Your task to perform on an android device: Go to wifi settings Image 0: 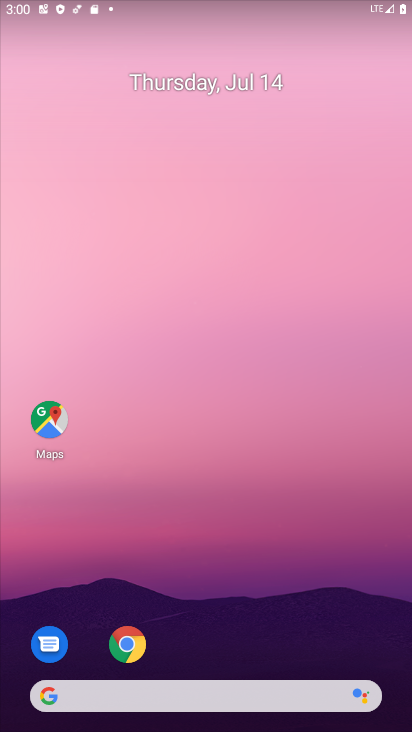
Step 0: drag from (202, 664) to (224, 204)
Your task to perform on an android device: Go to wifi settings Image 1: 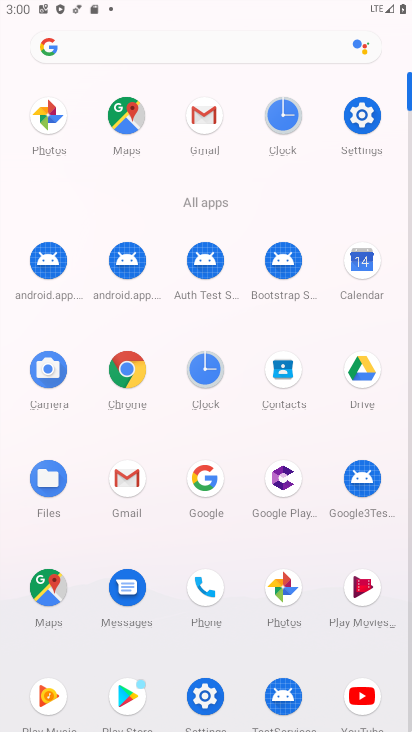
Step 1: click (206, 700)
Your task to perform on an android device: Go to wifi settings Image 2: 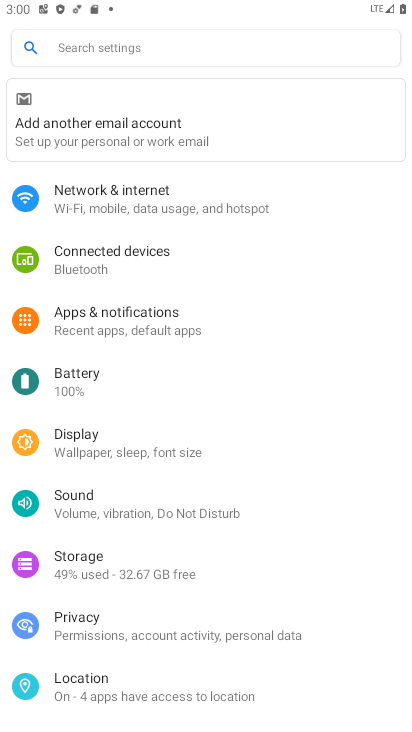
Step 2: click (127, 205)
Your task to perform on an android device: Go to wifi settings Image 3: 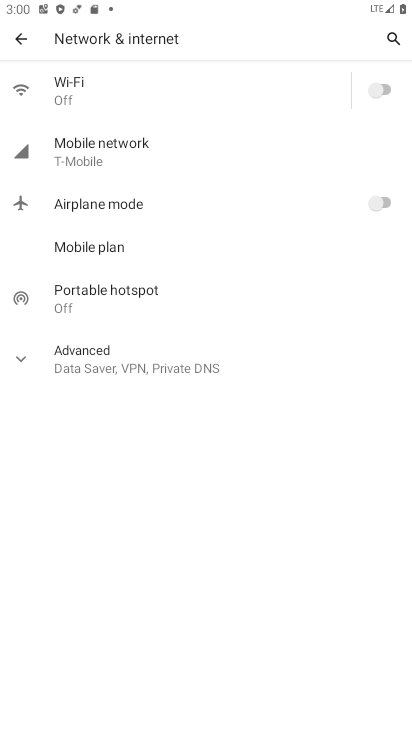
Step 3: click (153, 96)
Your task to perform on an android device: Go to wifi settings Image 4: 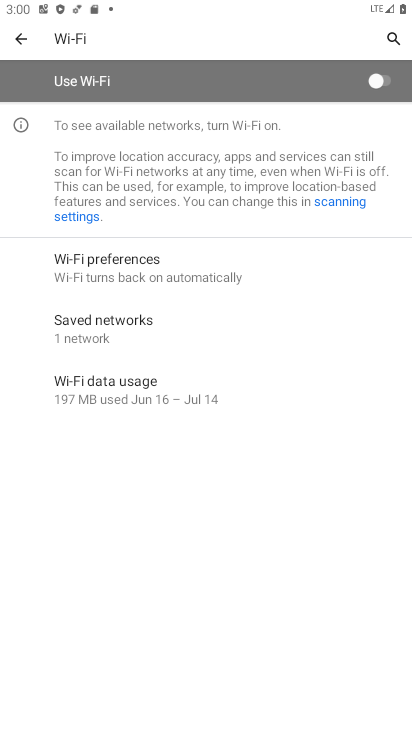
Step 4: task complete